Your task to perform on an android device: check battery use Image 0: 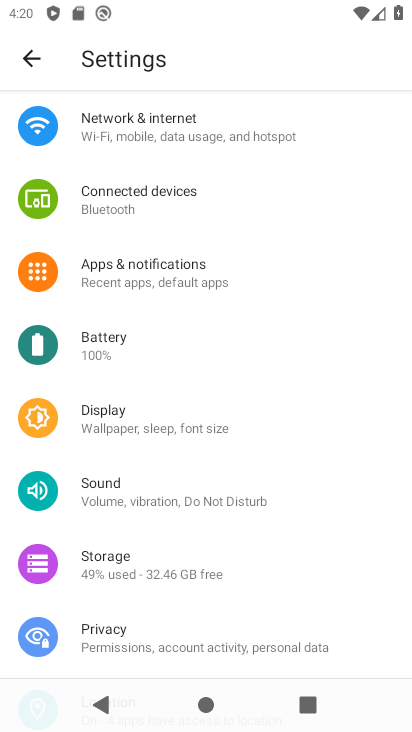
Step 0: click (74, 355)
Your task to perform on an android device: check battery use Image 1: 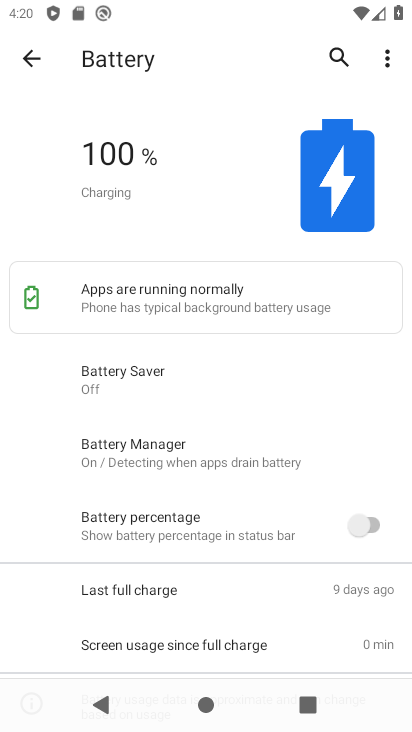
Step 1: click (393, 49)
Your task to perform on an android device: check battery use Image 2: 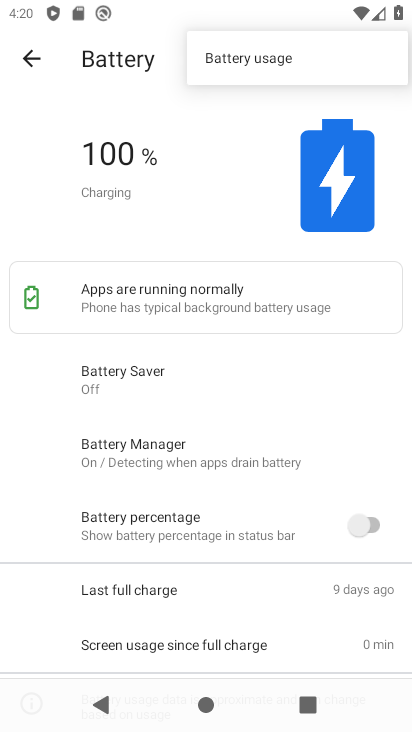
Step 2: click (267, 50)
Your task to perform on an android device: check battery use Image 3: 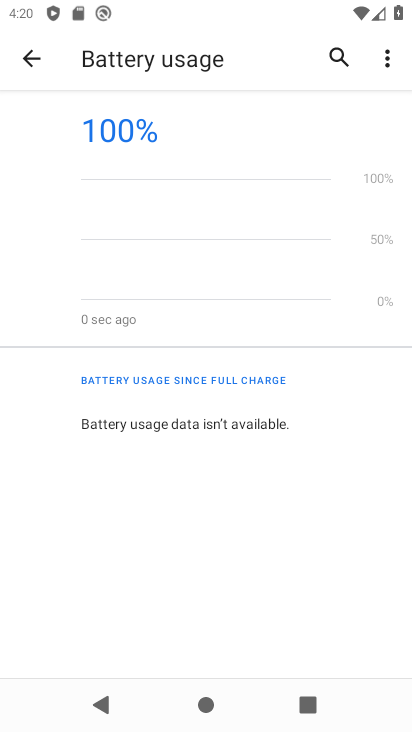
Step 3: task complete